Your task to perform on an android device: Open wifi settings Image 0: 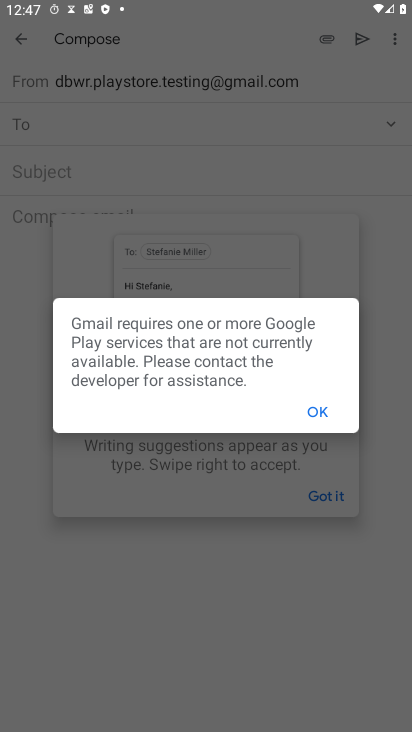
Step 0: press home button
Your task to perform on an android device: Open wifi settings Image 1: 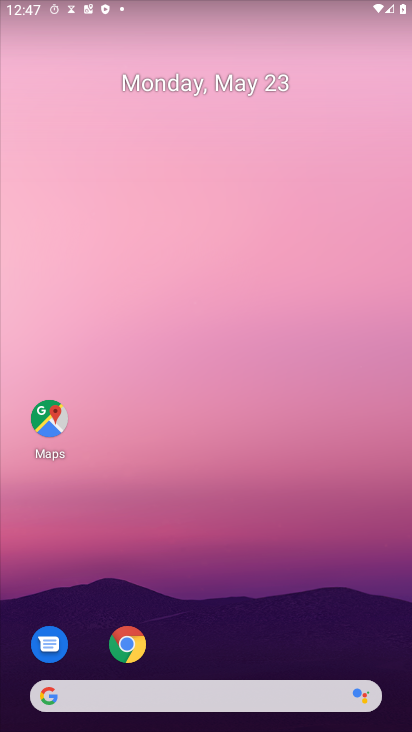
Step 1: drag from (251, 639) to (301, 94)
Your task to perform on an android device: Open wifi settings Image 2: 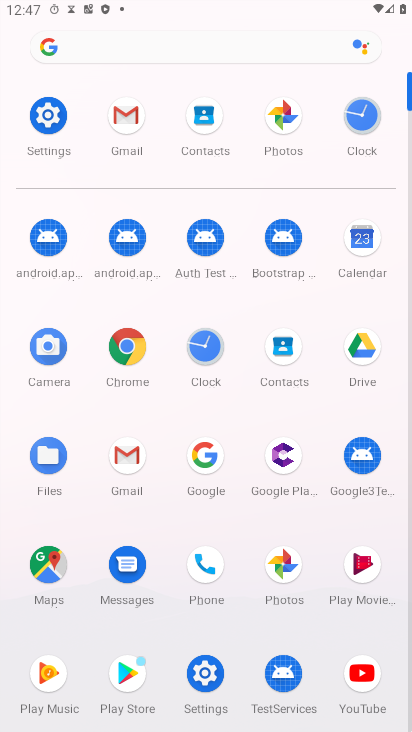
Step 2: click (42, 108)
Your task to perform on an android device: Open wifi settings Image 3: 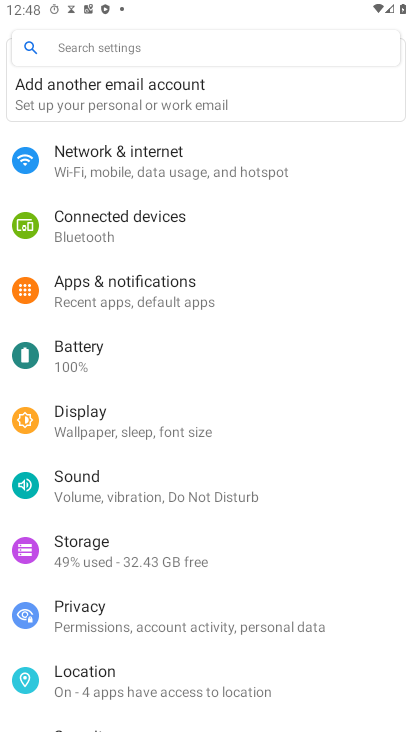
Step 3: click (244, 160)
Your task to perform on an android device: Open wifi settings Image 4: 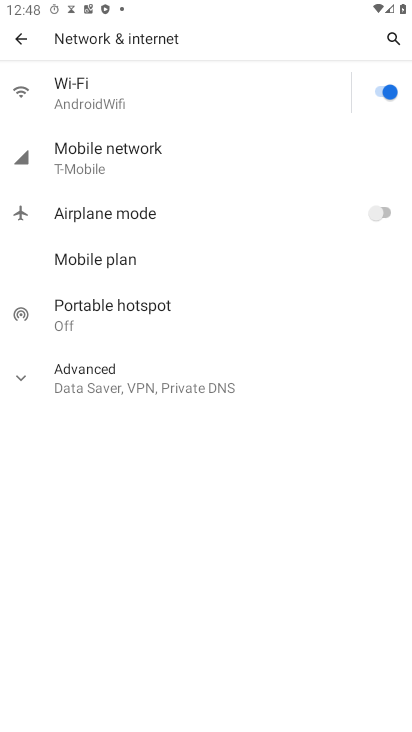
Step 4: click (120, 92)
Your task to perform on an android device: Open wifi settings Image 5: 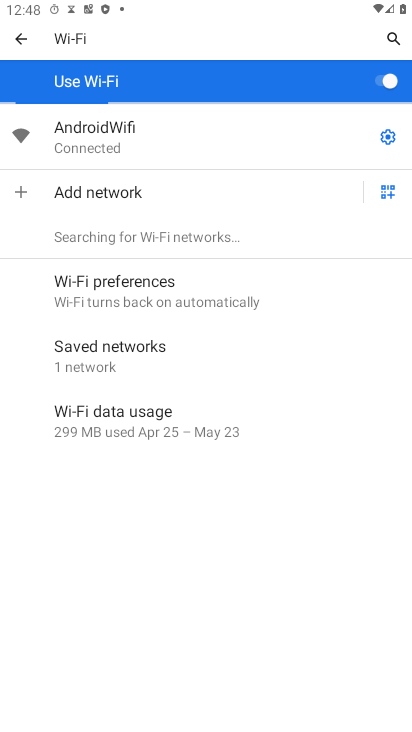
Step 5: task complete